Your task to perform on an android device: Open Google Chrome and click the shortcut for Amazon.com Image 0: 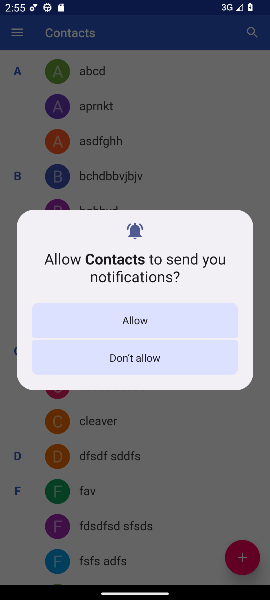
Step 0: press home button
Your task to perform on an android device: Open Google Chrome and click the shortcut for Amazon.com Image 1: 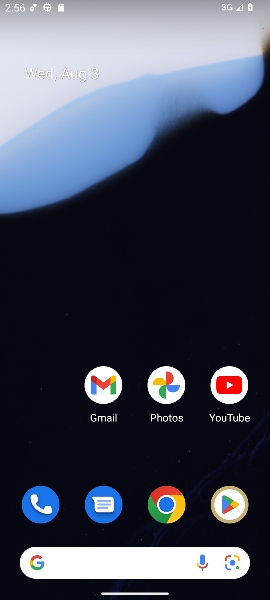
Step 1: drag from (198, 468) to (182, 63)
Your task to perform on an android device: Open Google Chrome and click the shortcut for Amazon.com Image 2: 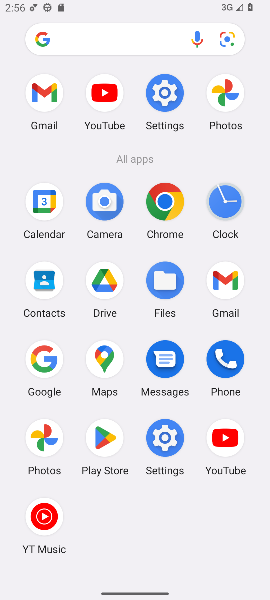
Step 2: click (165, 202)
Your task to perform on an android device: Open Google Chrome and click the shortcut for Amazon.com Image 3: 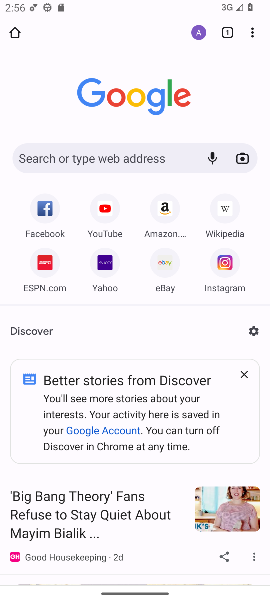
Step 3: click (168, 210)
Your task to perform on an android device: Open Google Chrome and click the shortcut for Amazon.com Image 4: 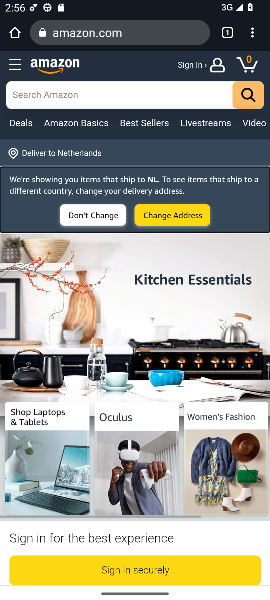
Step 4: task complete